Your task to perform on an android device: search for starred emails in the gmail app Image 0: 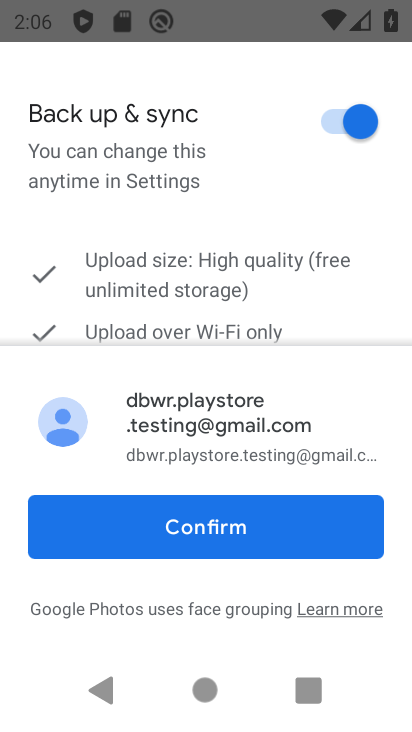
Step 0: press home button
Your task to perform on an android device: search for starred emails in the gmail app Image 1: 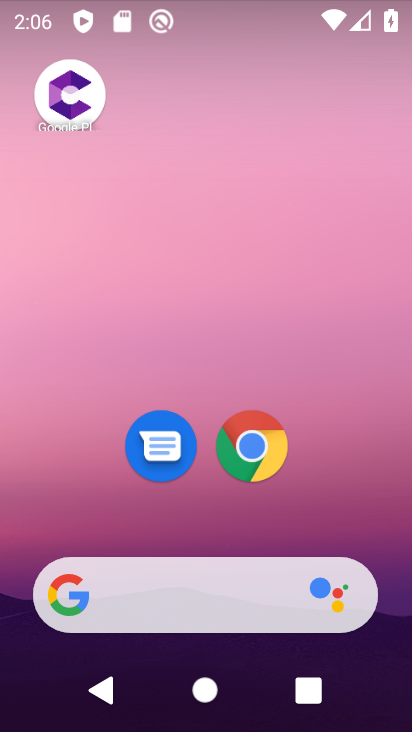
Step 1: drag from (328, 400) to (126, 176)
Your task to perform on an android device: search for starred emails in the gmail app Image 2: 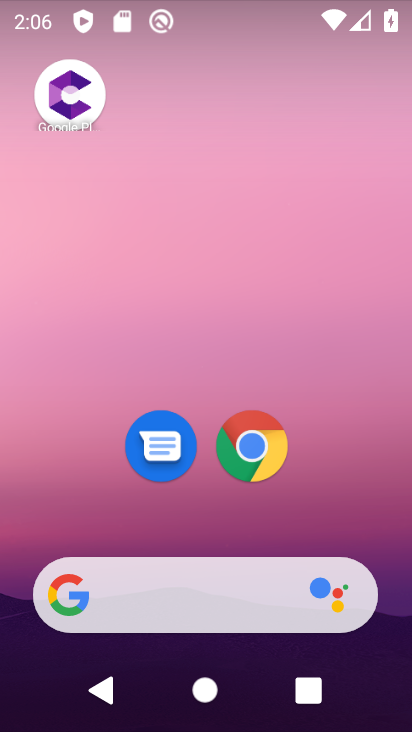
Step 2: drag from (285, 409) to (142, 72)
Your task to perform on an android device: search for starred emails in the gmail app Image 3: 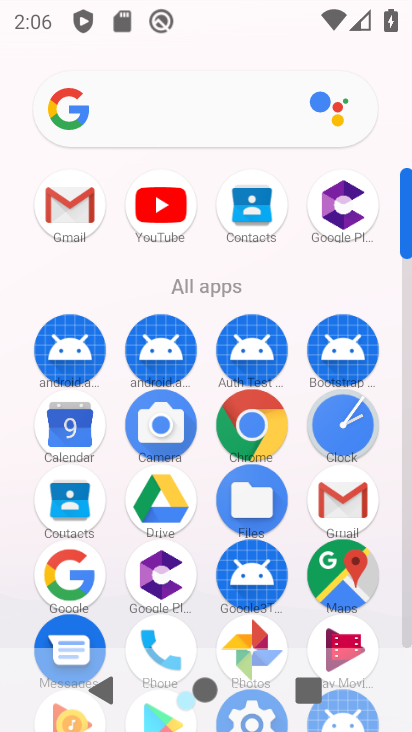
Step 3: click (346, 508)
Your task to perform on an android device: search for starred emails in the gmail app Image 4: 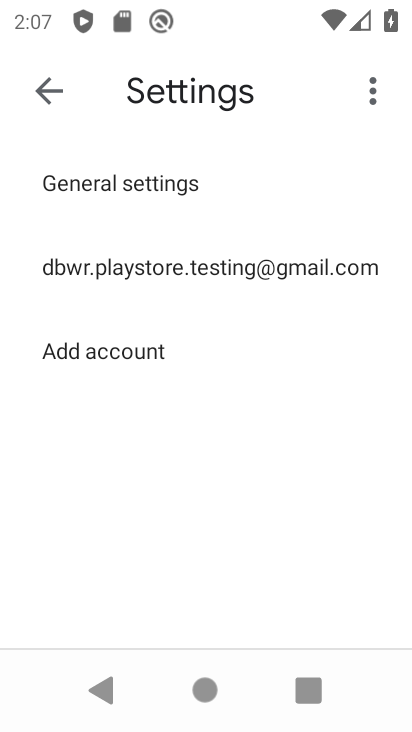
Step 4: press back button
Your task to perform on an android device: search for starred emails in the gmail app Image 5: 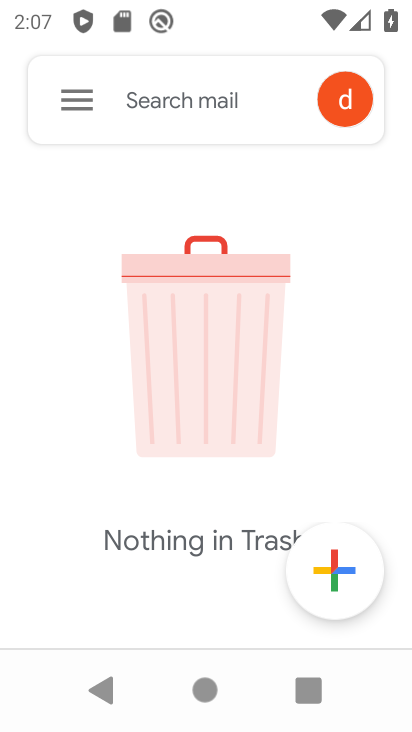
Step 5: click (82, 100)
Your task to perform on an android device: search for starred emails in the gmail app Image 6: 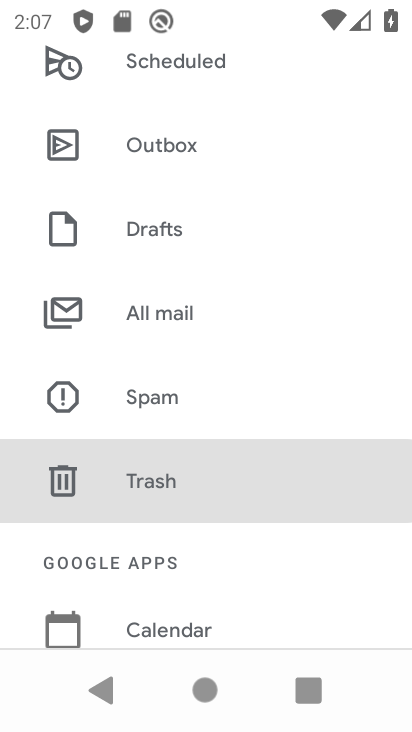
Step 6: drag from (83, 278) to (75, 622)
Your task to perform on an android device: search for starred emails in the gmail app Image 7: 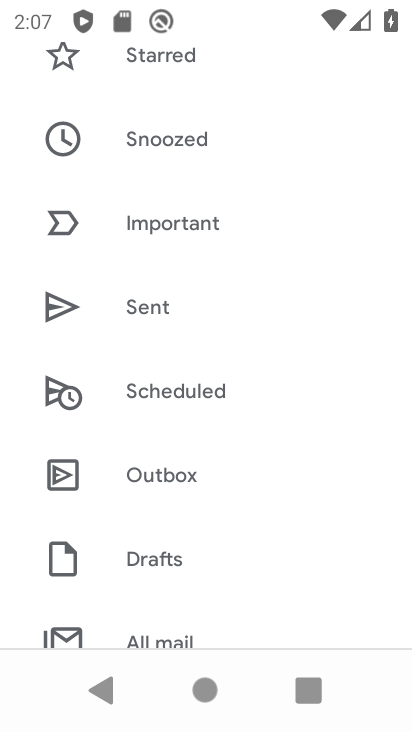
Step 7: drag from (129, 225) to (136, 553)
Your task to perform on an android device: search for starred emails in the gmail app Image 8: 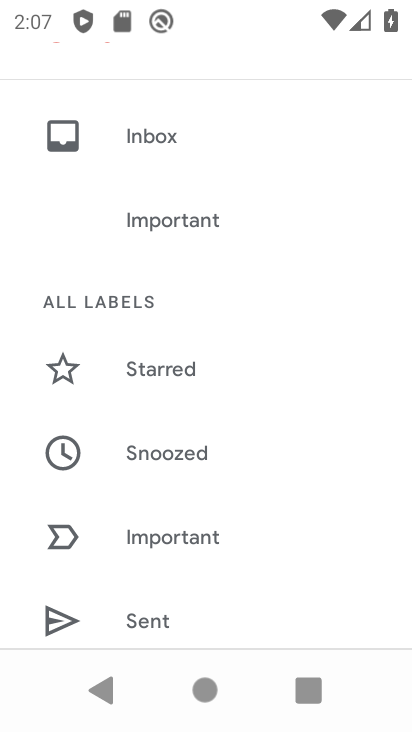
Step 8: click (160, 375)
Your task to perform on an android device: search for starred emails in the gmail app Image 9: 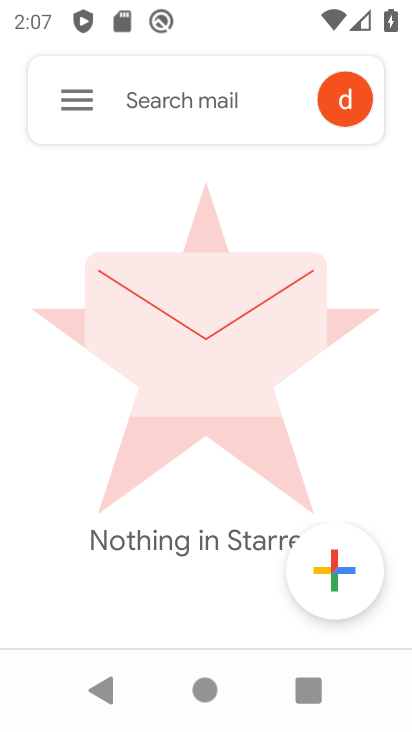
Step 9: task complete